Your task to perform on an android device: Find coffee shops on Maps Image 0: 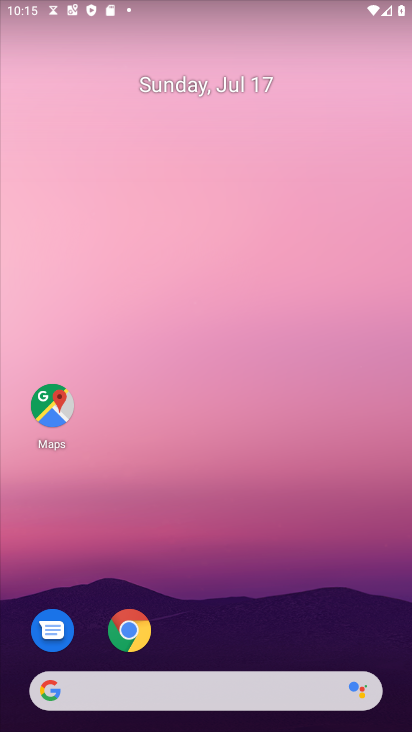
Step 0: drag from (346, 599) to (340, 139)
Your task to perform on an android device: Find coffee shops on Maps Image 1: 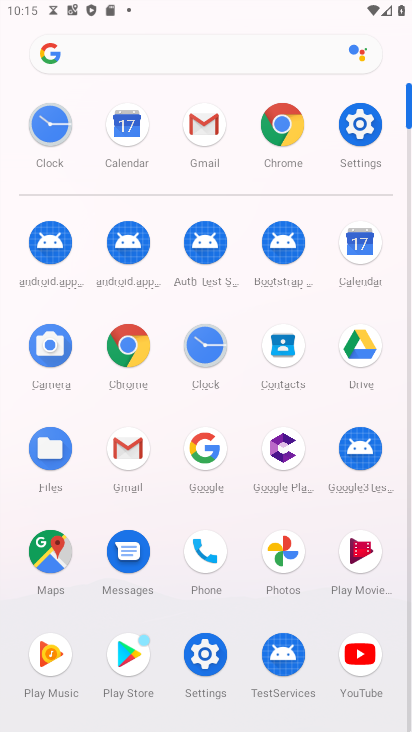
Step 1: click (49, 553)
Your task to perform on an android device: Find coffee shops on Maps Image 2: 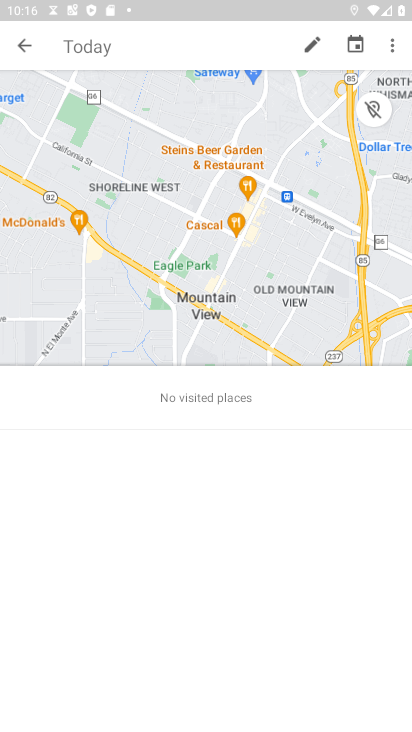
Step 2: press back button
Your task to perform on an android device: Find coffee shops on Maps Image 3: 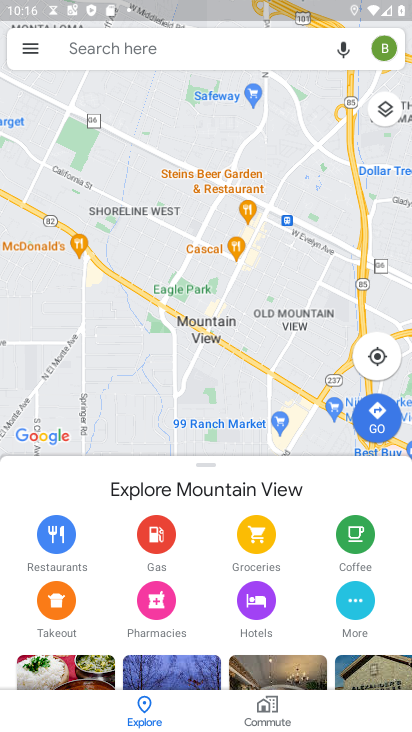
Step 3: click (148, 37)
Your task to perform on an android device: Find coffee shops on Maps Image 4: 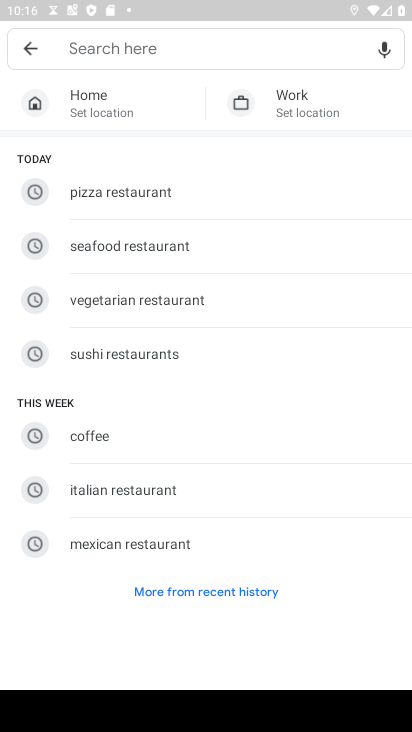
Step 4: type "coffee shops"
Your task to perform on an android device: Find coffee shops on Maps Image 5: 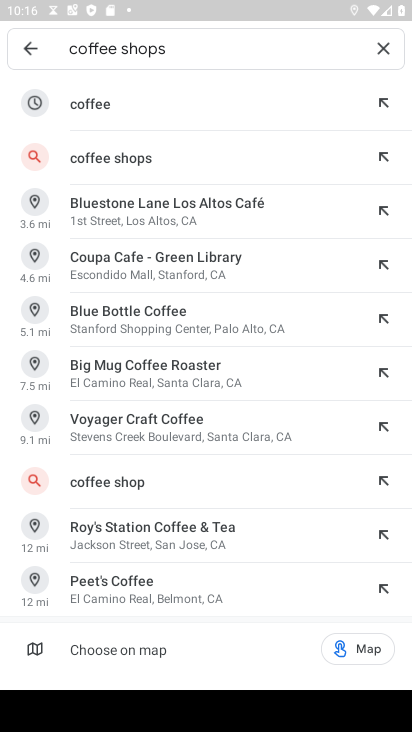
Step 5: click (179, 164)
Your task to perform on an android device: Find coffee shops on Maps Image 6: 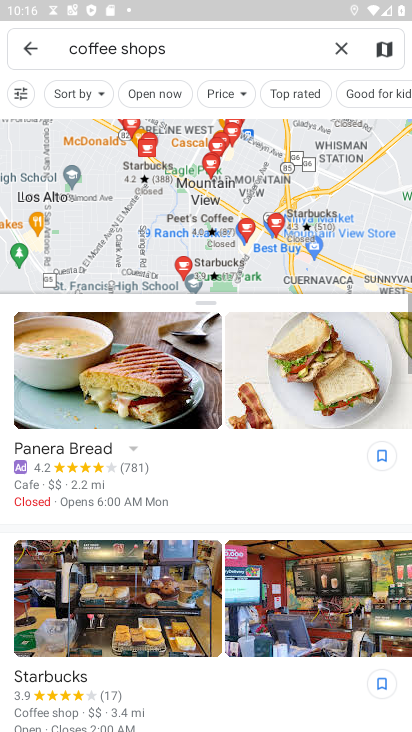
Step 6: task complete